Your task to perform on an android device: turn off priority inbox in the gmail app Image 0: 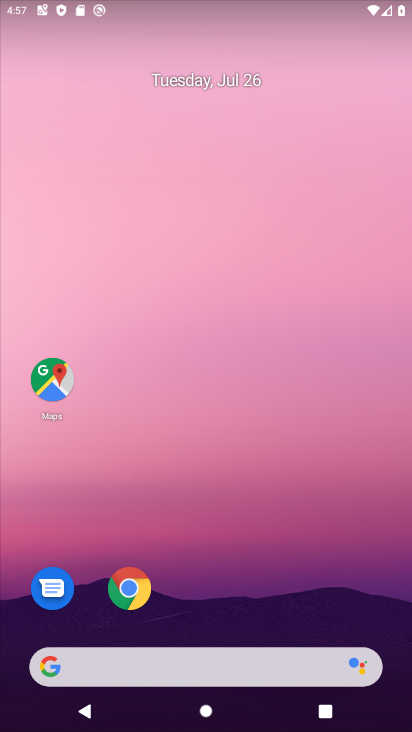
Step 0: drag from (263, 646) to (287, 156)
Your task to perform on an android device: turn off priority inbox in the gmail app Image 1: 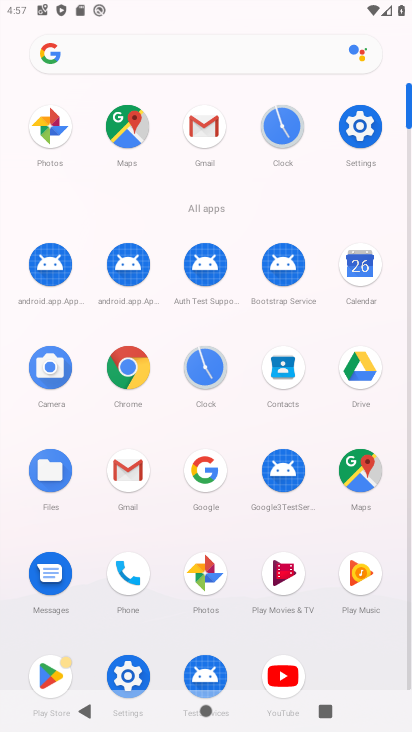
Step 1: click (211, 144)
Your task to perform on an android device: turn off priority inbox in the gmail app Image 2: 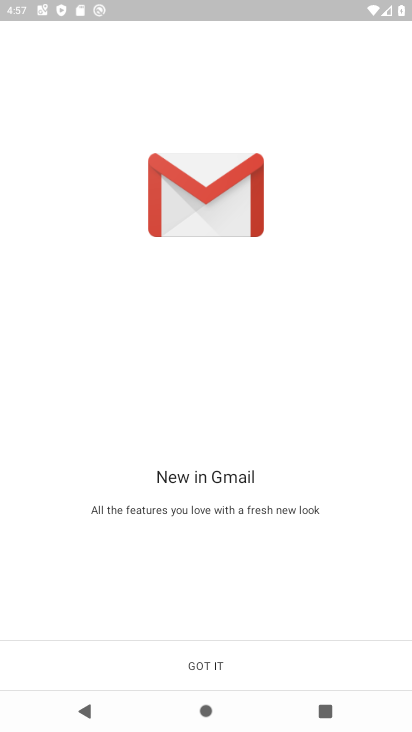
Step 2: click (165, 675)
Your task to perform on an android device: turn off priority inbox in the gmail app Image 3: 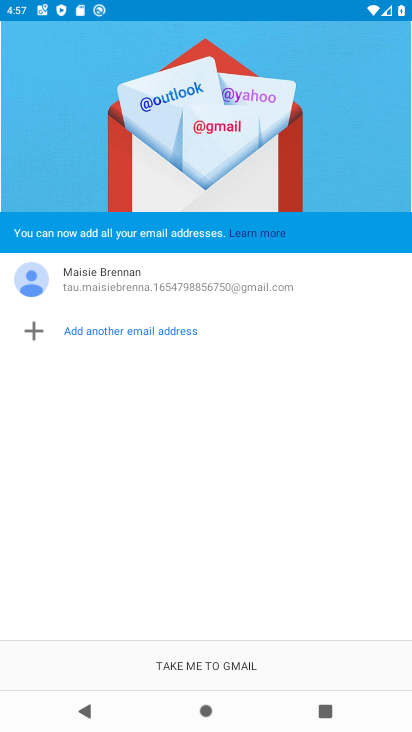
Step 3: click (170, 675)
Your task to perform on an android device: turn off priority inbox in the gmail app Image 4: 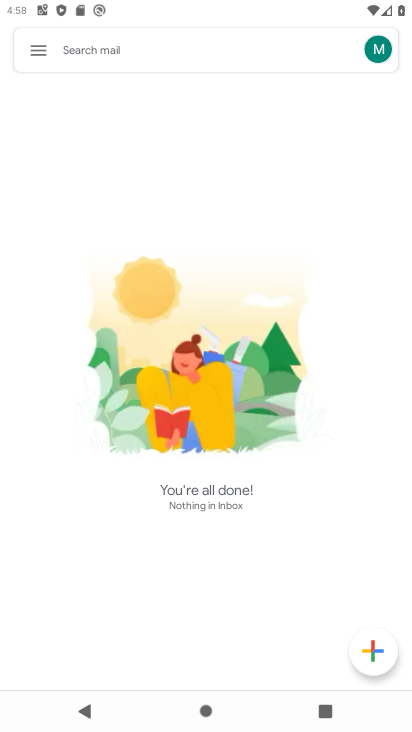
Step 4: click (41, 51)
Your task to perform on an android device: turn off priority inbox in the gmail app Image 5: 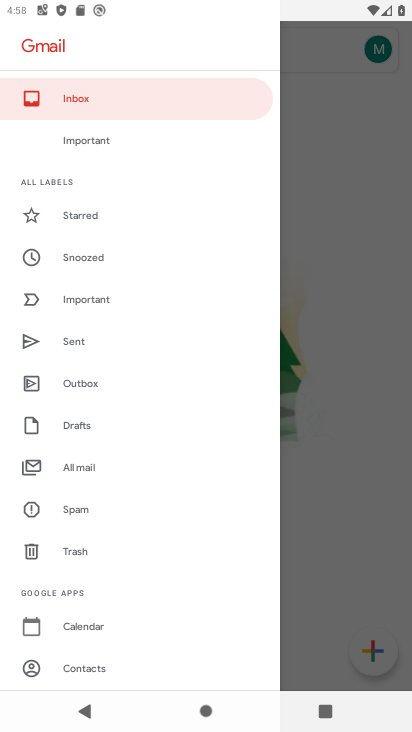
Step 5: drag from (88, 637) to (114, 359)
Your task to perform on an android device: turn off priority inbox in the gmail app Image 6: 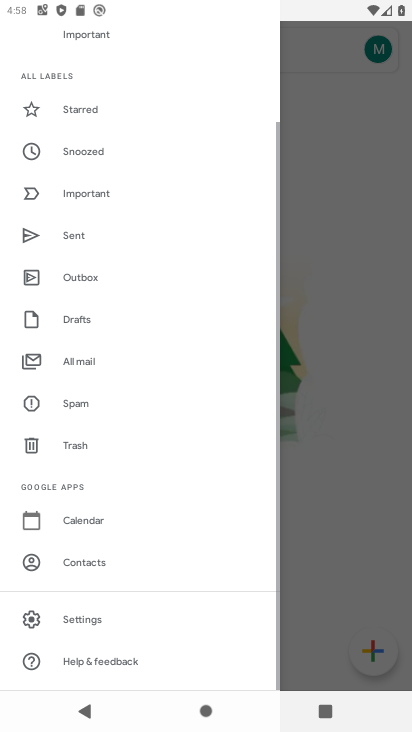
Step 6: click (64, 623)
Your task to perform on an android device: turn off priority inbox in the gmail app Image 7: 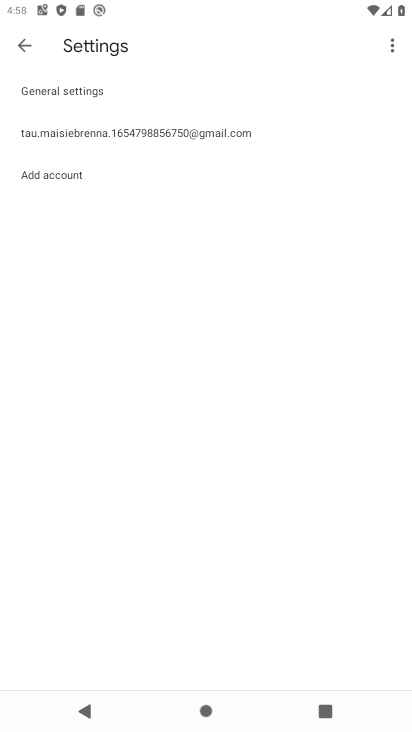
Step 7: click (85, 135)
Your task to perform on an android device: turn off priority inbox in the gmail app Image 8: 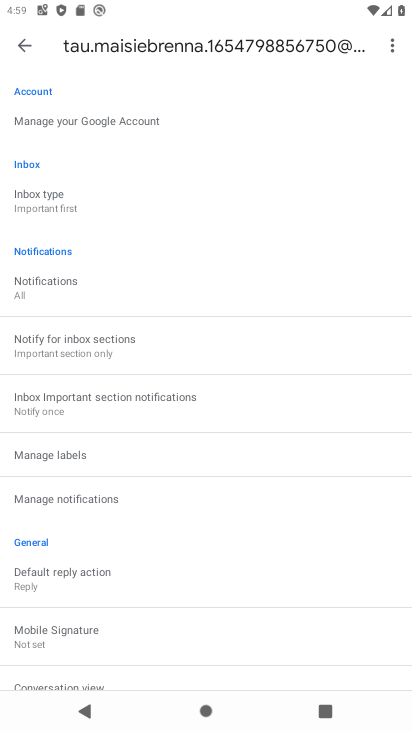
Step 8: click (72, 204)
Your task to perform on an android device: turn off priority inbox in the gmail app Image 9: 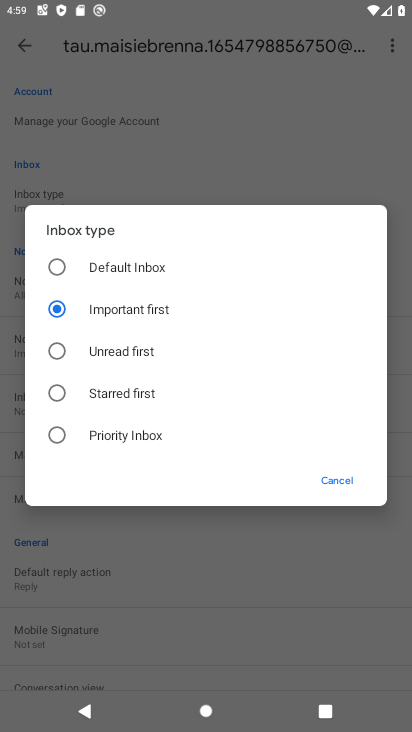
Step 9: task complete